Your task to perform on an android device: Google the capital of Chile Image 0: 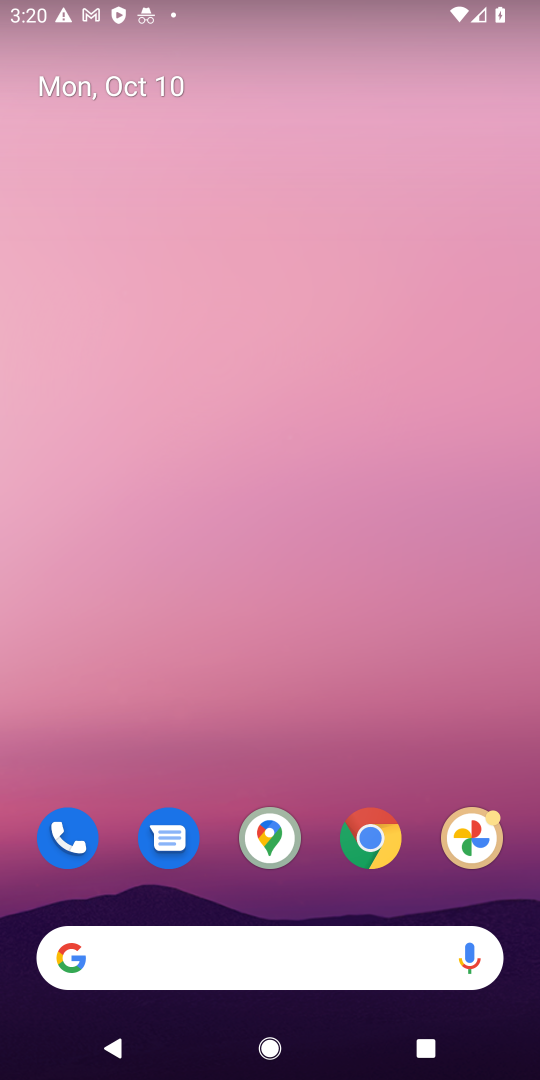
Step 0: click (363, 837)
Your task to perform on an android device: Google the capital of Chile Image 1: 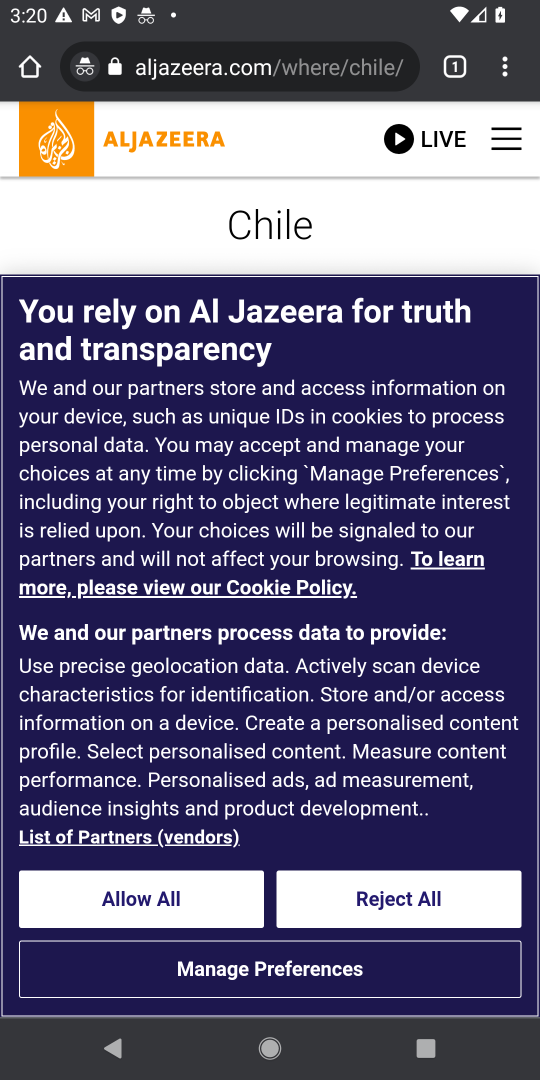
Step 1: click (283, 67)
Your task to perform on an android device: Google the capital of Chile Image 2: 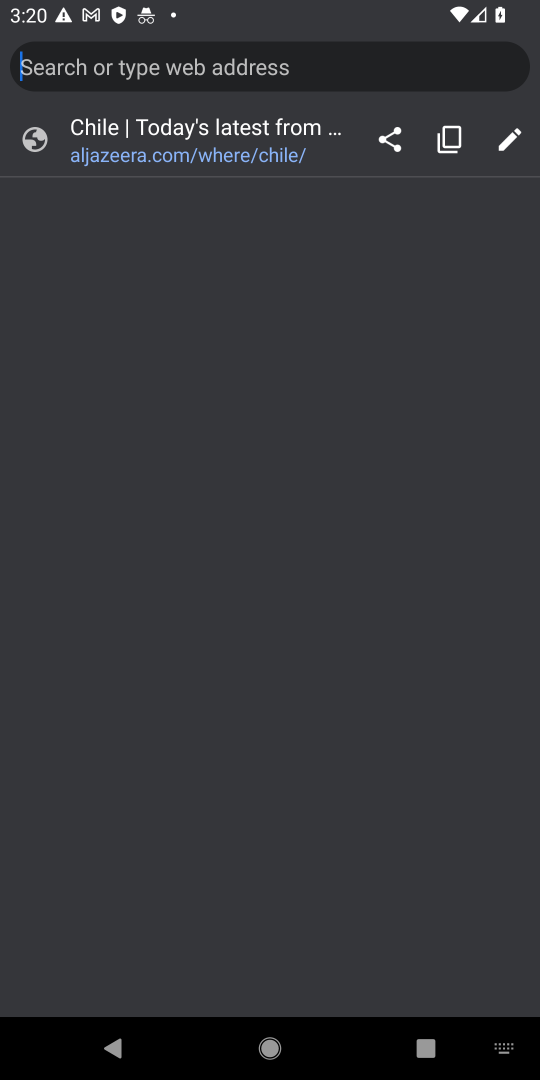
Step 2: type "capital of chile "
Your task to perform on an android device: Google the capital of Chile Image 3: 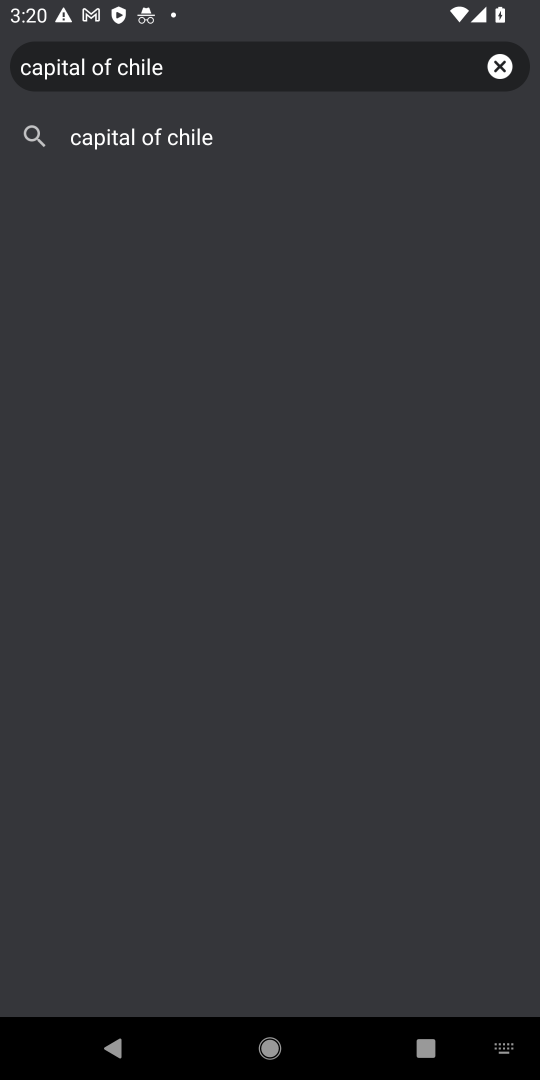
Step 3: click (107, 150)
Your task to perform on an android device: Google the capital of Chile Image 4: 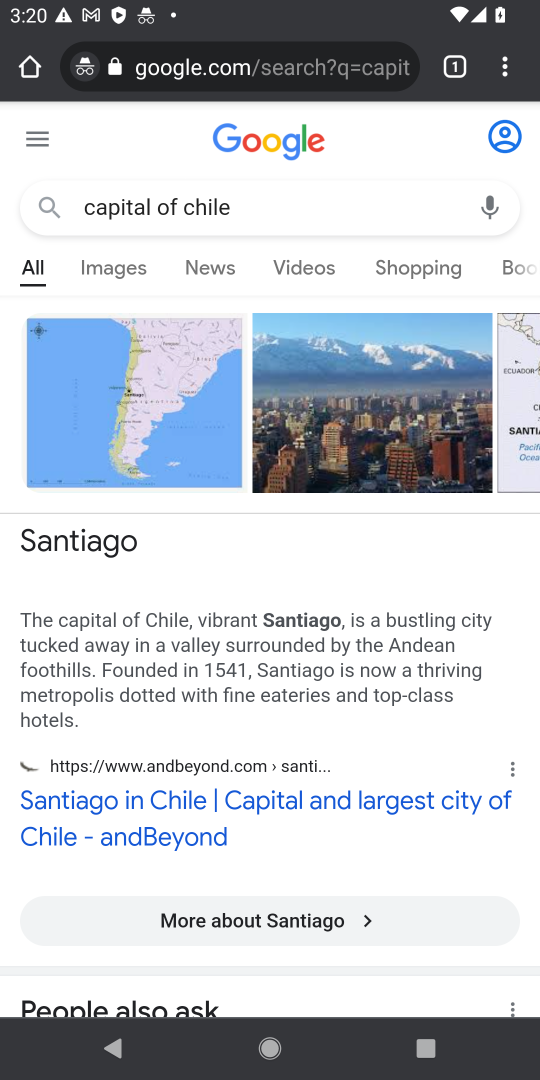
Step 4: task complete